Your task to perform on an android device: open app "Google Duo" (install if not already installed) Image 0: 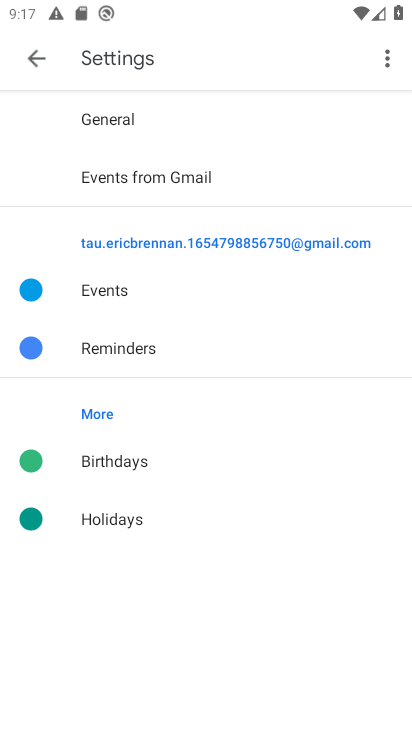
Step 0: press home button
Your task to perform on an android device: open app "Google Duo" (install if not already installed) Image 1: 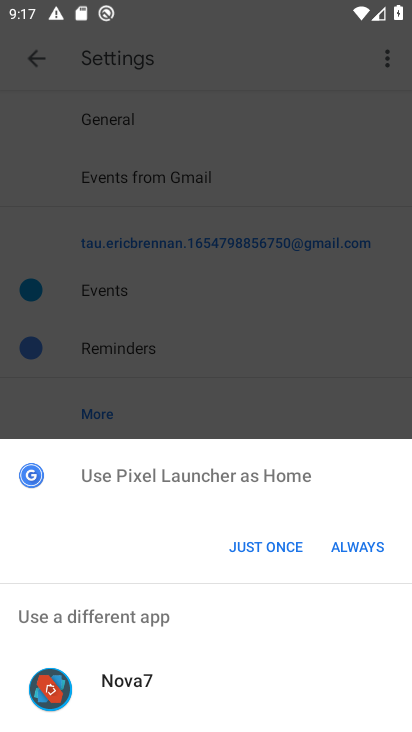
Step 1: click (295, 540)
Your task to perform on an android device: open app "Google Duo" (install if not already installed) Image 2: 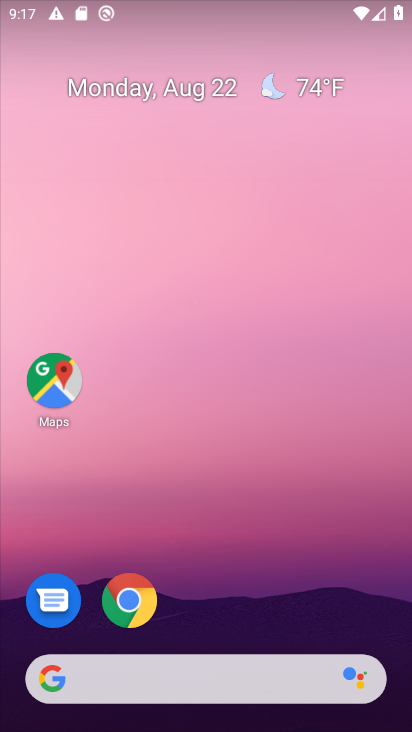
Step 2: drag from (178, 595) to (155, 155)
Your task to perform on an android device: open app "Google Duo" (install if not already installed) Image 3: 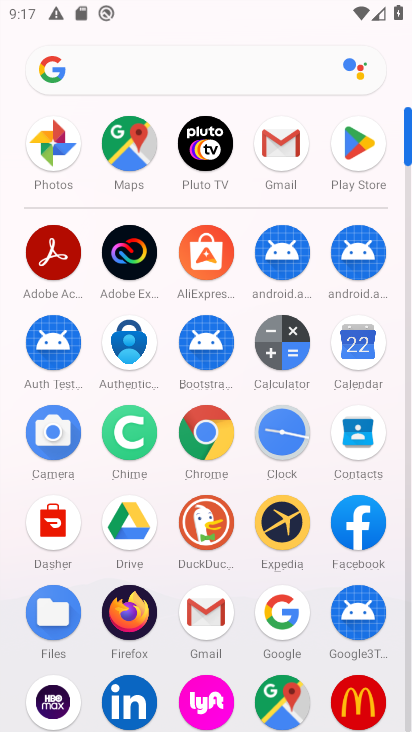
Step 3: click (351, 162)
Your task to perform on an android device: open app "Google Duo" (install if not already installed) Image 4: 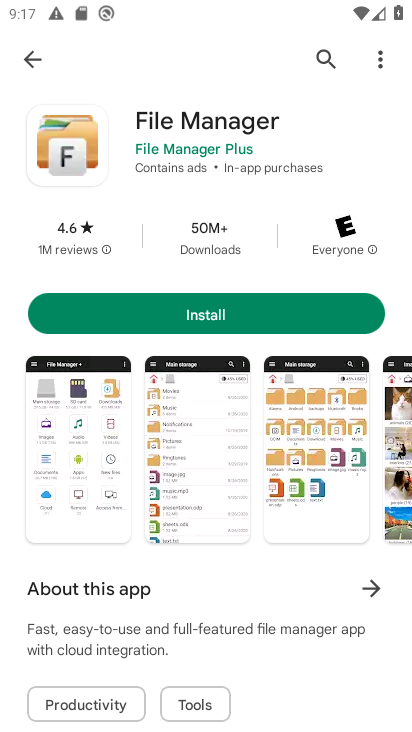
Step 4: click (315, 67)
Your task to perform on an android device: open app "Google Duo" (install if not already installed) Image 5: 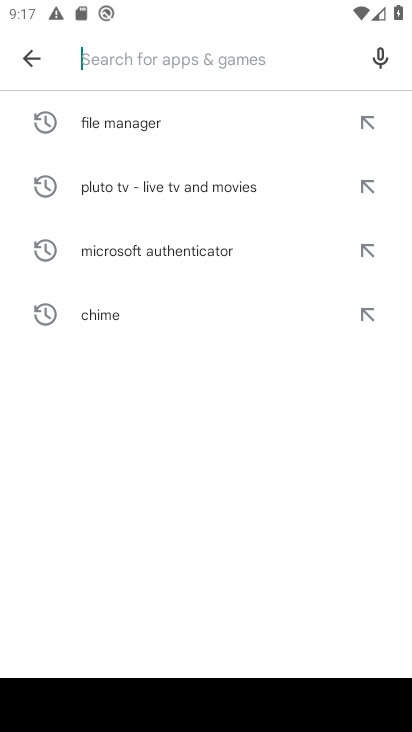
Step 5: type "Google Duo"
Your task to perform on an android device: open app "Google Duo" (install if not already installed) Image 6: 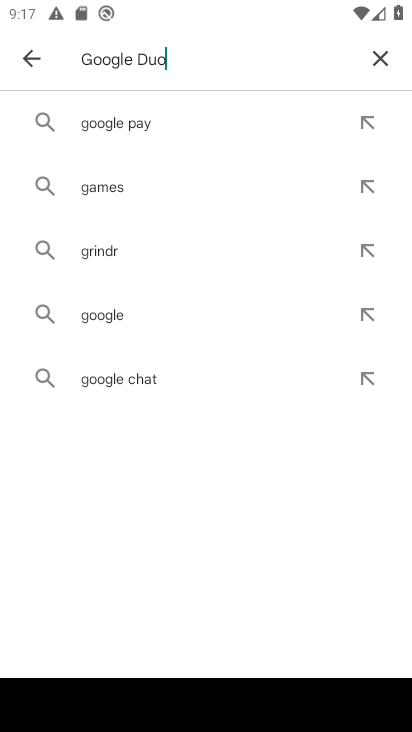
Step 6: type ""
Your task to perform on an android device: open app "Google Duo" (install if not already installed) Image 7: 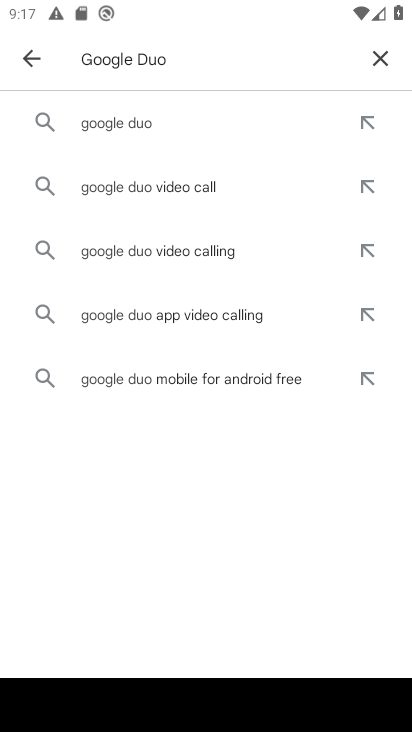
Step 7: click (150, 116)
Your task to perform on an android device: open app "Google Duo" (install if not already installed) Image 8: 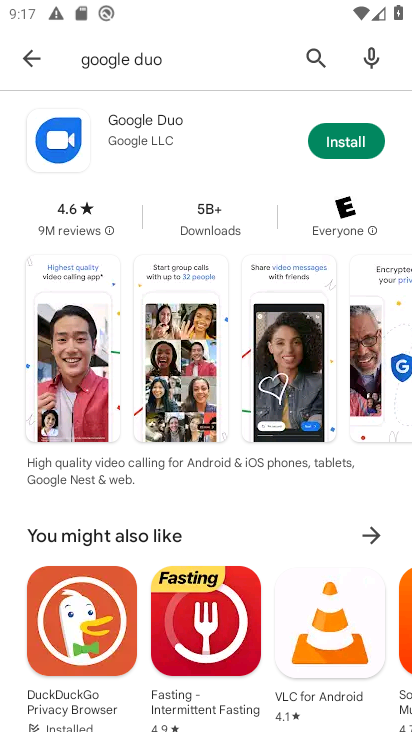
Step 8: click (319, 147)
Your task to perform on an android device: open app "Google Duo" (install if not already installed) Image 9: 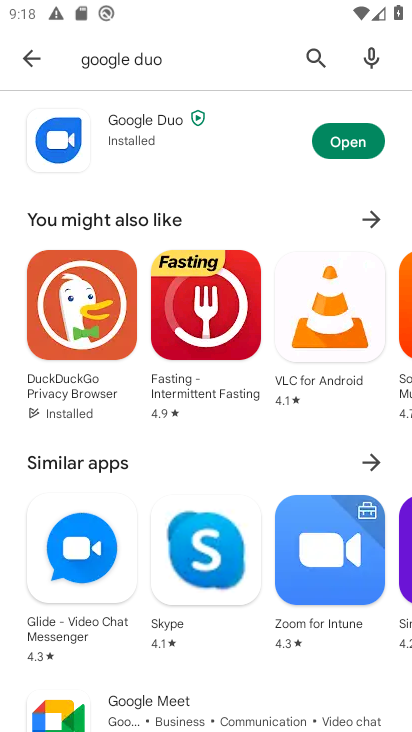
Step 9: click (319, 147)
Your task to perform on an android device: open app "Google Duo" (install if not already installed) Image 10: 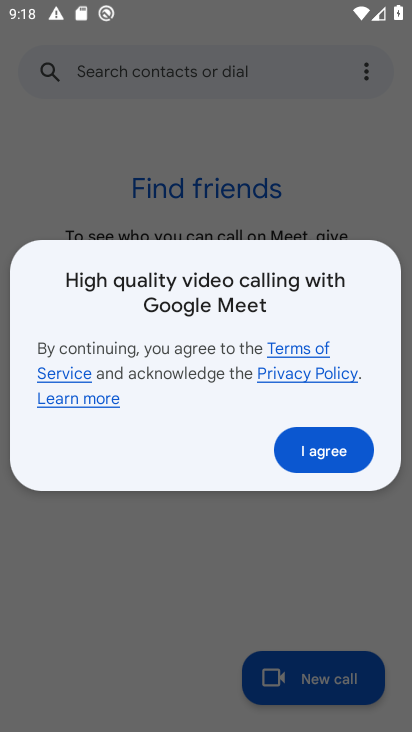
Step 10: task complete